Your task to perform on an android device: Open the stopwatch Image 0: 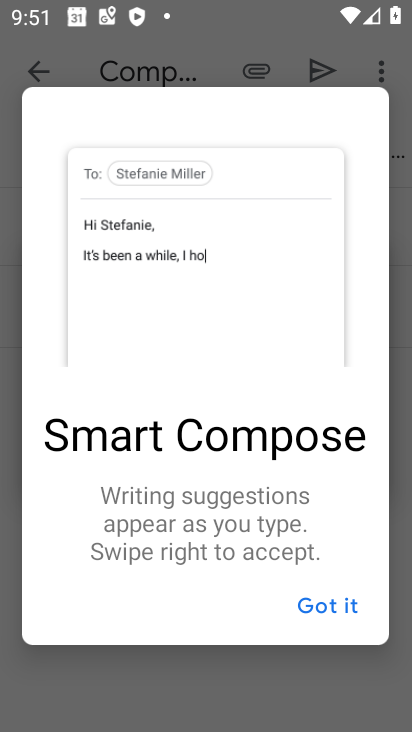
Step 0: press home button
Your task to perform on an android device: Open the stopwatch Image 1: 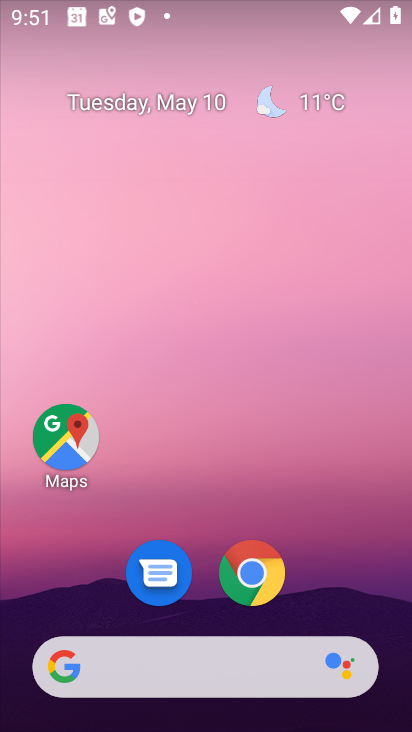
Step 1: drag from (387, 635) to (379, 29)
Your task to perform on an android device: Open the stopwatch Image 2: 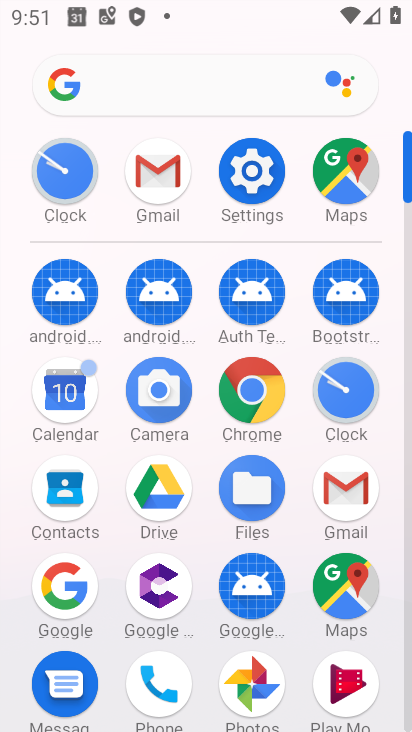
Step 2: click (62, 163)
Your task to perform on an android device: Open the stopwatch Image 3: 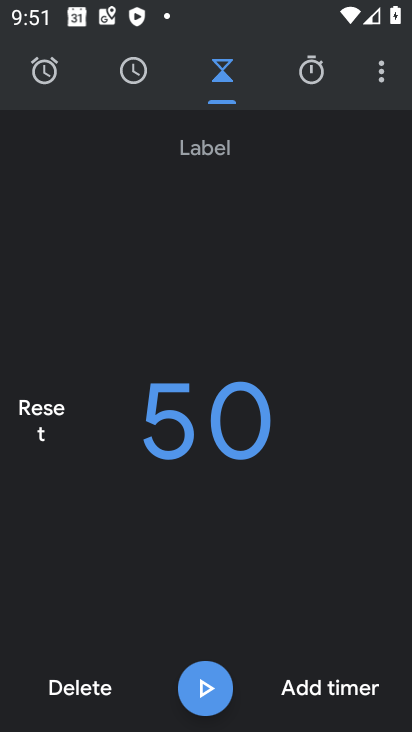
Step 3: click (308, 76)
Your task to perform on an android device: Open the stopwatch Image 4: 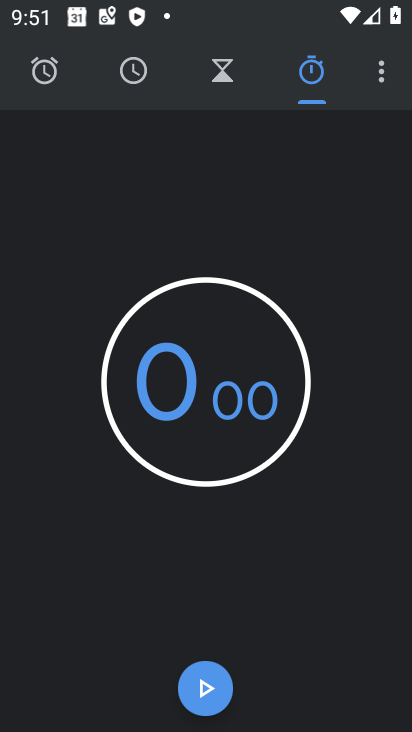
Step 4: click (203, 703)
Your task to perform on an android device: Open the stopwatch Image 5: 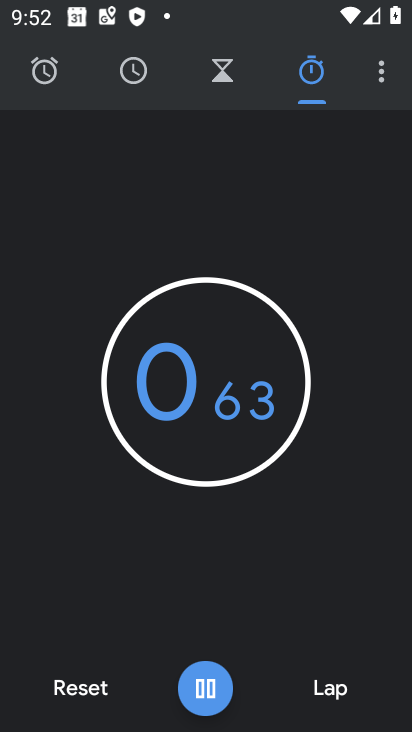
Step 5: click (203, 704)
Your task to perform on an android device: Open the stopwatch Image 6: 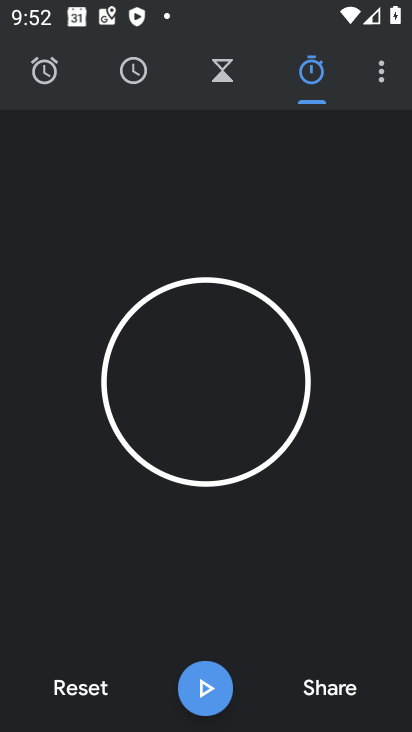
Step 6: task complete